Your task to perform on an android device: What is the news today? Image 0: 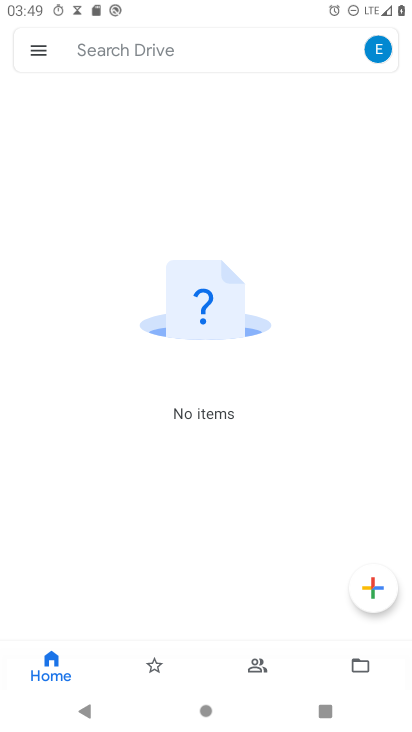
Step 0: press home button
Your task to perform on an android device: What is the news today? Image 1: 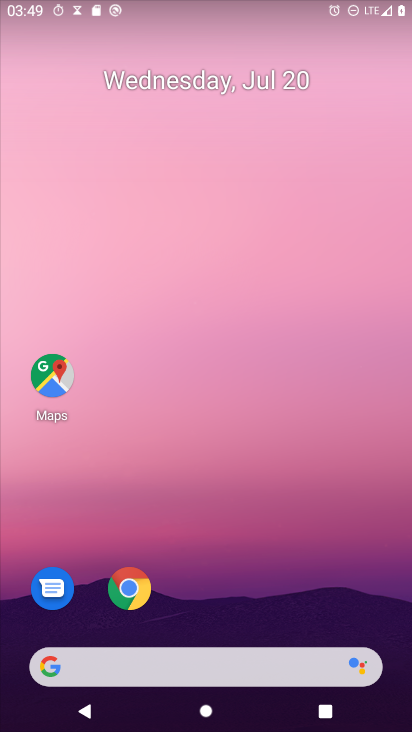
Step 1: click (163, 645)
Your task to perform on an android device: What is the news today? Image 2: 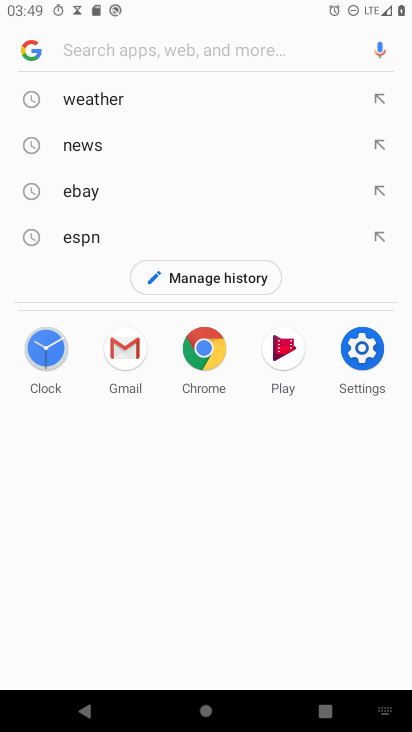
Step 2: click (99, 132)
Your task to perform on an android device: What is the news today? Image 3: 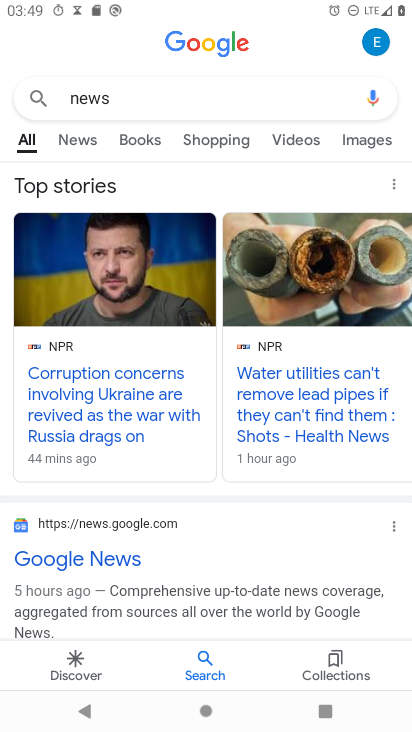
Step 3: task complete